Your task to perform on an android device: Is it going to rain this weekend? Image 0: 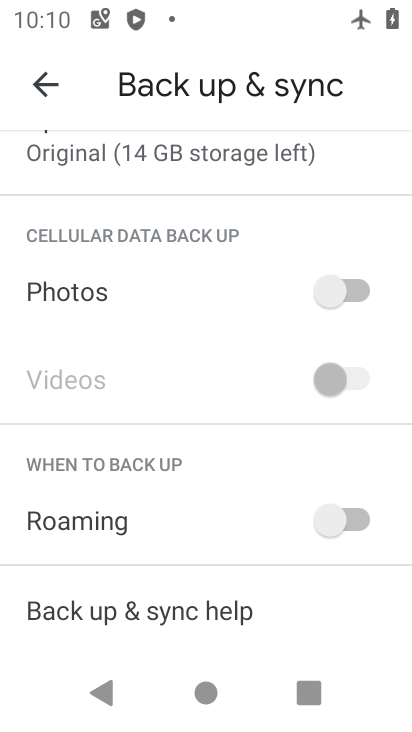
Step 0: press home button
Your task to perform on an android device: Is it going to rain this weekend? Image 1: 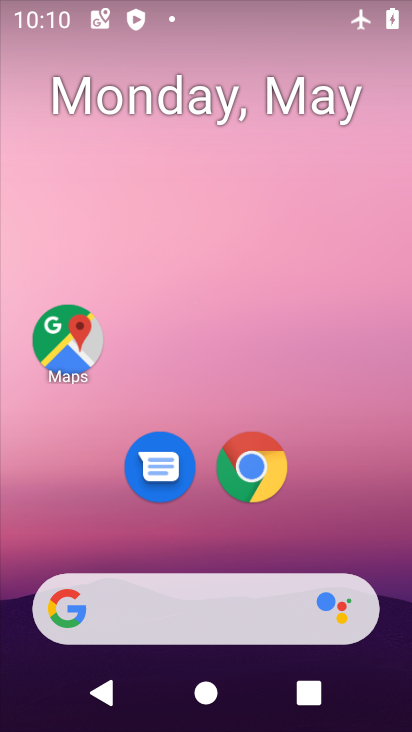
Step 1: drag from (10, 147) to (407, 206)
Your task to perform on an android device: Is it going to rain this weekend? Image 2: 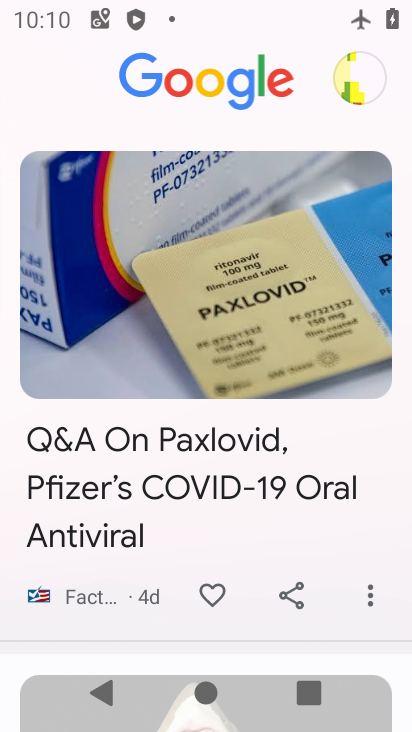
Step 2: drag from (393, 452) to (135, 428)
Your task to perform on an android device: Is it going to rain this weekend? Image 3: 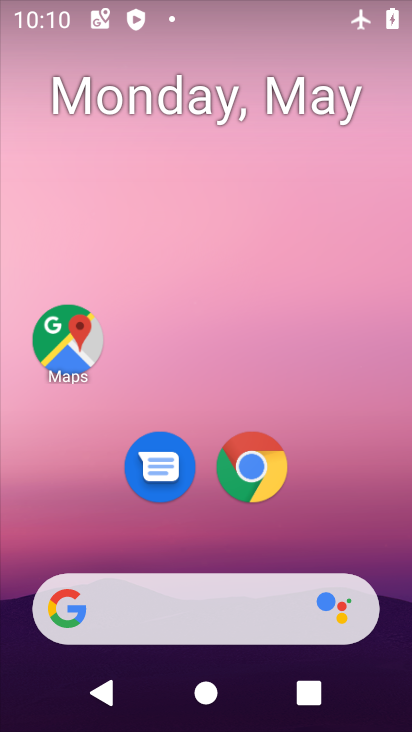
Step 3: click (209, 618)
Your task to perform on an android device: Is it going to rain this weekend? Image 4: 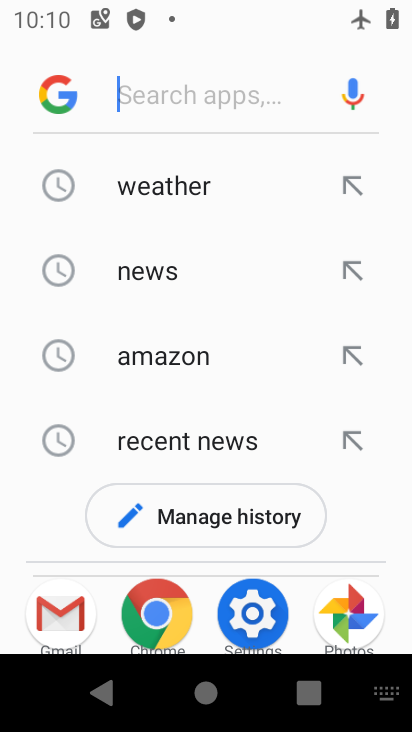
Step 4: click (153, 179)
Your task to perform on an android device: Is it going to rain this weekend? Image 5: 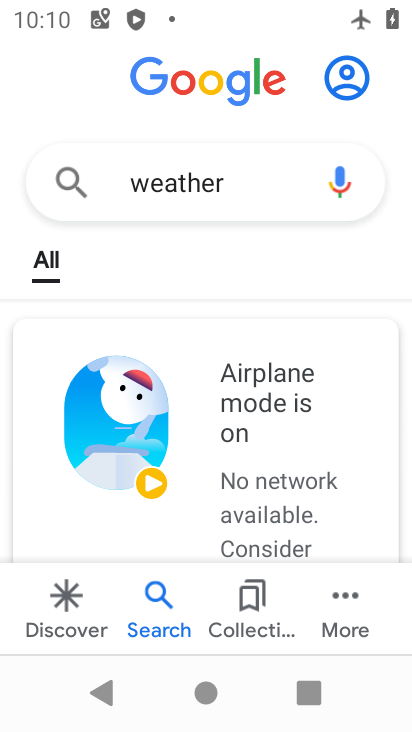
Step 5: task complete